Your task to perform on an android device: turn on notifications settings in the gmail app Image 0: 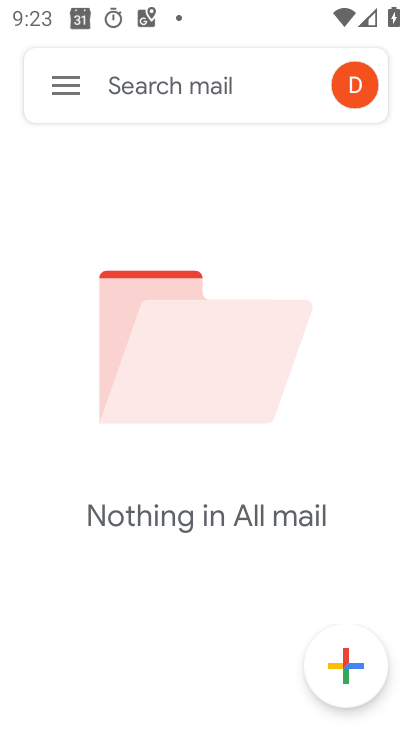
Step 0: click (60, 77)
Your task to perform on an android device: turn on notifications settings in the gmail app Image 1: 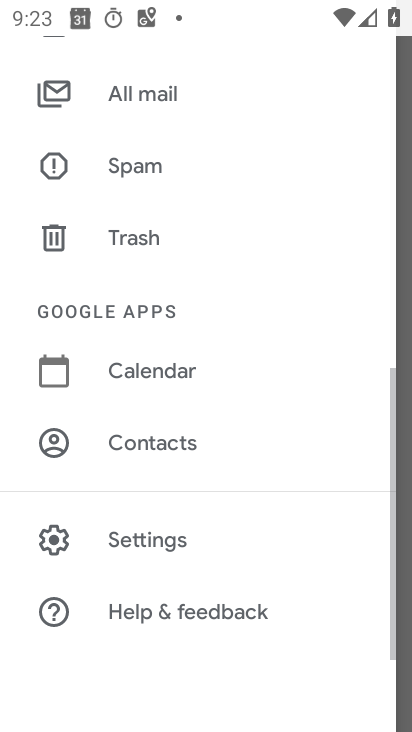
Step 1: click (149, 523)
Your task to perform on an android device: turn on notifications settings in the gmail app Image 2: 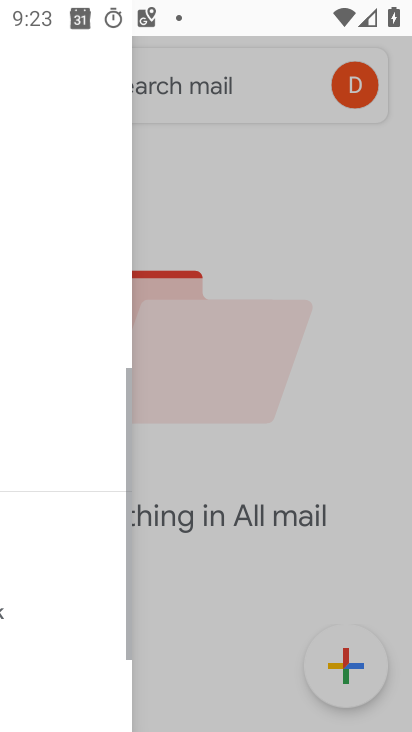
Step 2: click (142, 531)
Your task to perform on an android device: turn on notifications settings in the gmail app Image 3: 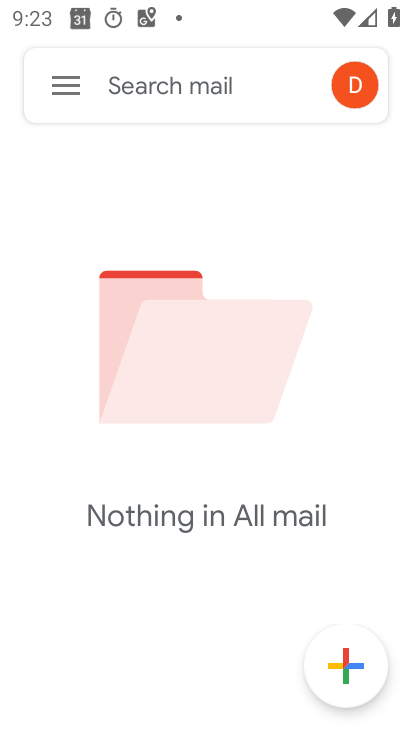
Step 3: click (142, 531)
Your task to perform on an android device: turn on notifications settings in the gmail app Image 4: 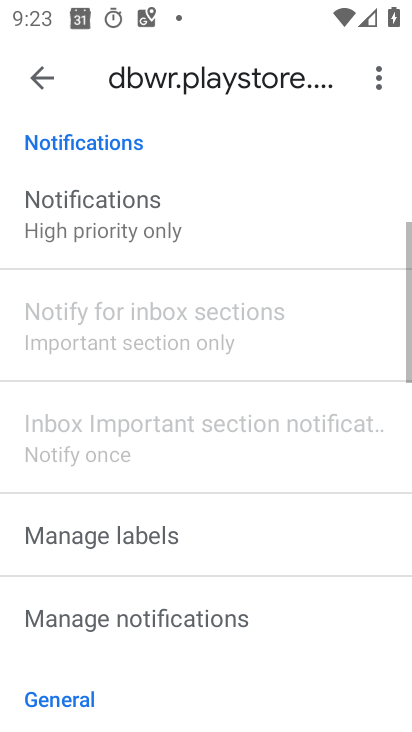
Step 4: drag from (169, 536) to (181, 120)
Your task to perform on an android device: turn on notifications settings in the gmail app Image 5: 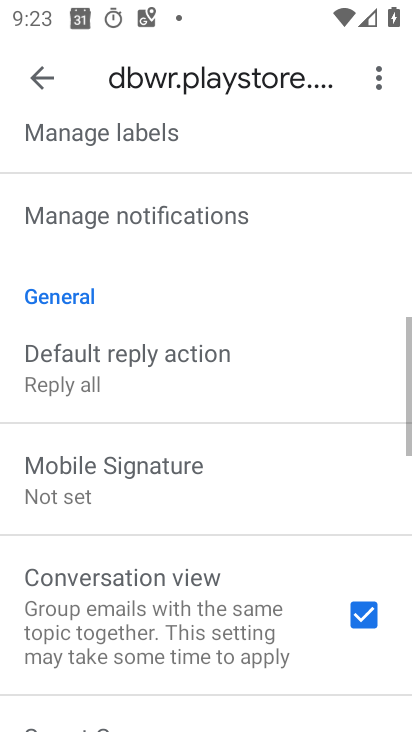
Step 5: drag from (241, 488) to (194, 231)
Your task to perform on an android device: turn on notifications settings in the gmail app Image 6: 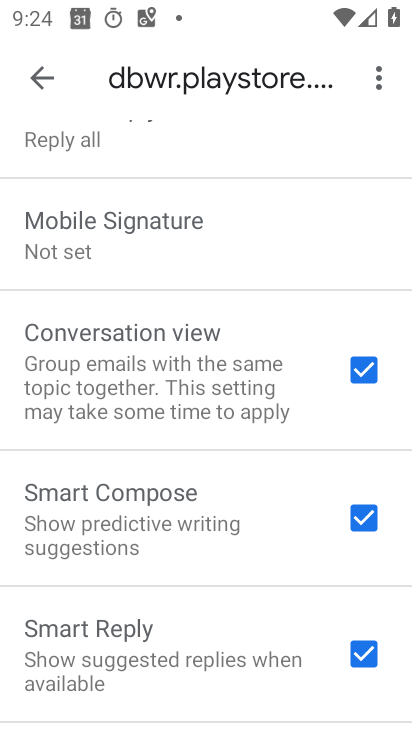
Step 6: drag from (125, 248) to (175, 631)
Your task to perform on an android device: turn on notifications settings in the gmail app Image 7: 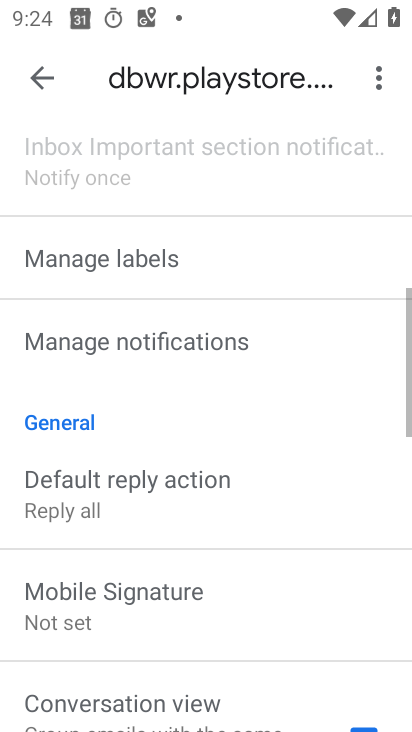
Step 7: drag from (144, 354) to (210, 587)
Your task to perform on an android device: turn on notifications settings in the gmail app Image 8: 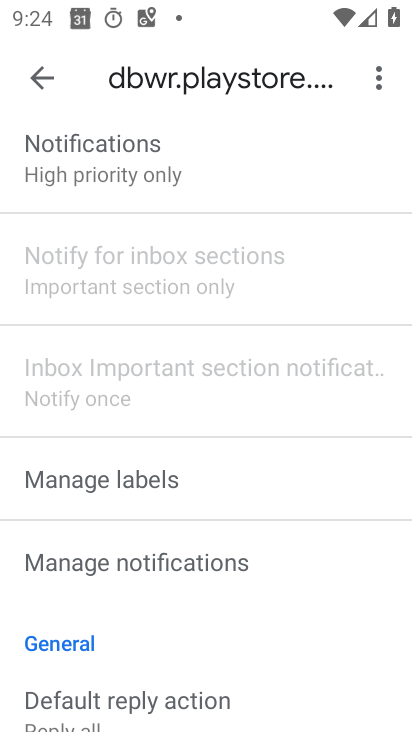
Step 8: click (78, 154)
Your task to perform on an android device: turn on notifications settings in the gmail app Image 9: 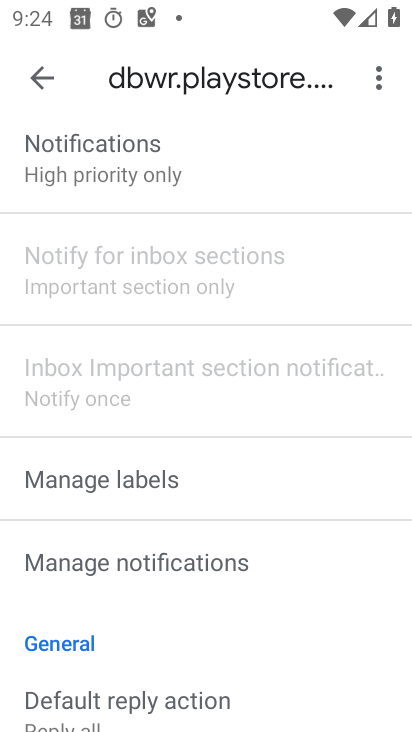
Step 9: click (79, 165)
Your task to perform on an android device: turn on notifications settings in the gmail app Image 10: 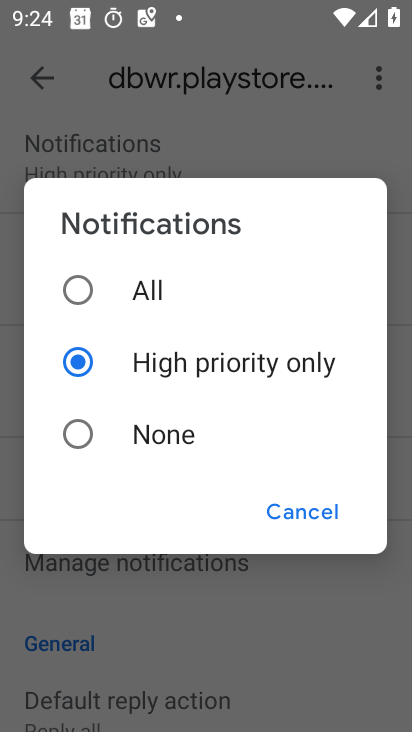
Step 10: click (78, 318)
Your task to perform on an android device: turn on notifications settings in the gmail app Image 11: 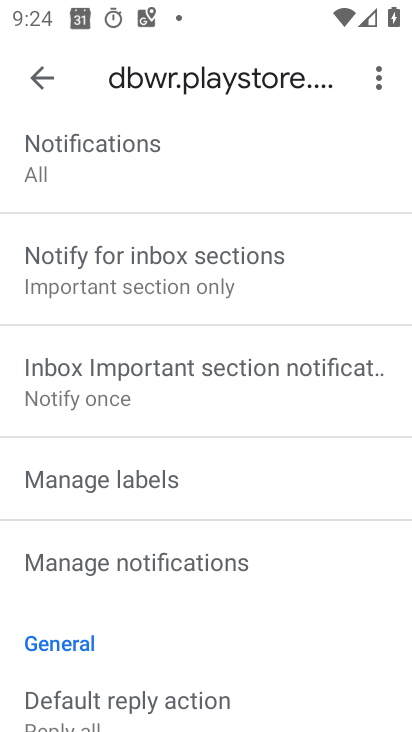
Step 11: task complete